Your task to perform on an android device: install app "PUBG MOBILE" Image 0: 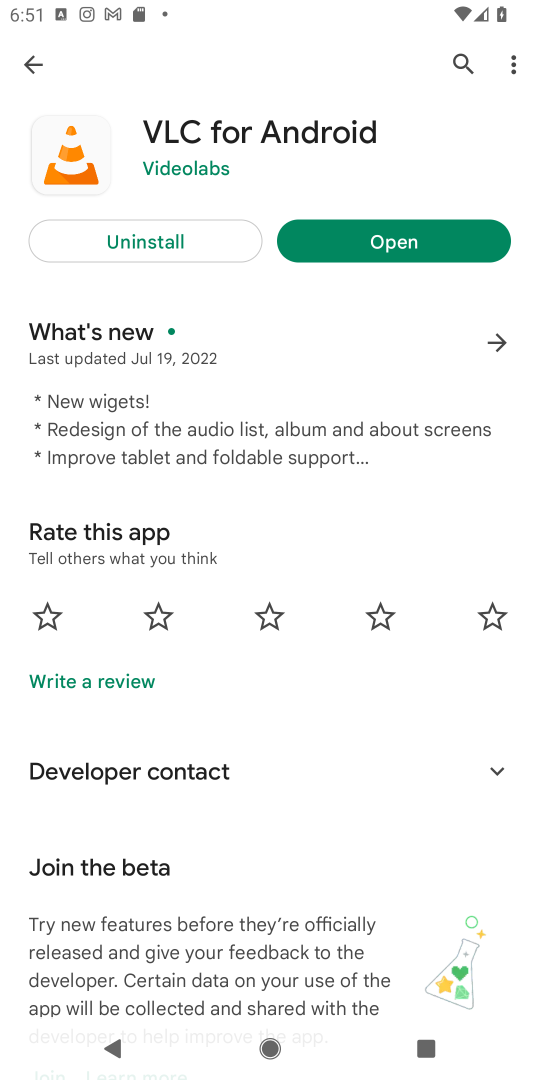
Step 0: press home button
Your task to perform on an android device: install app "PUBG MOBILE" Image 1: 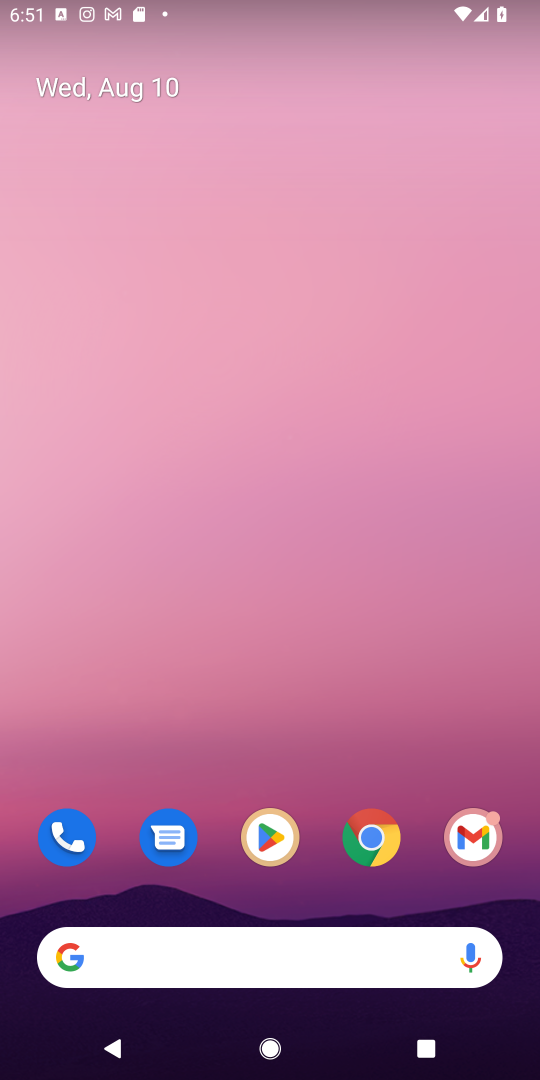
Step 1: click (277, 831)
Your task to perform on an android device: install app "PUBG MOBILE" Image 2: 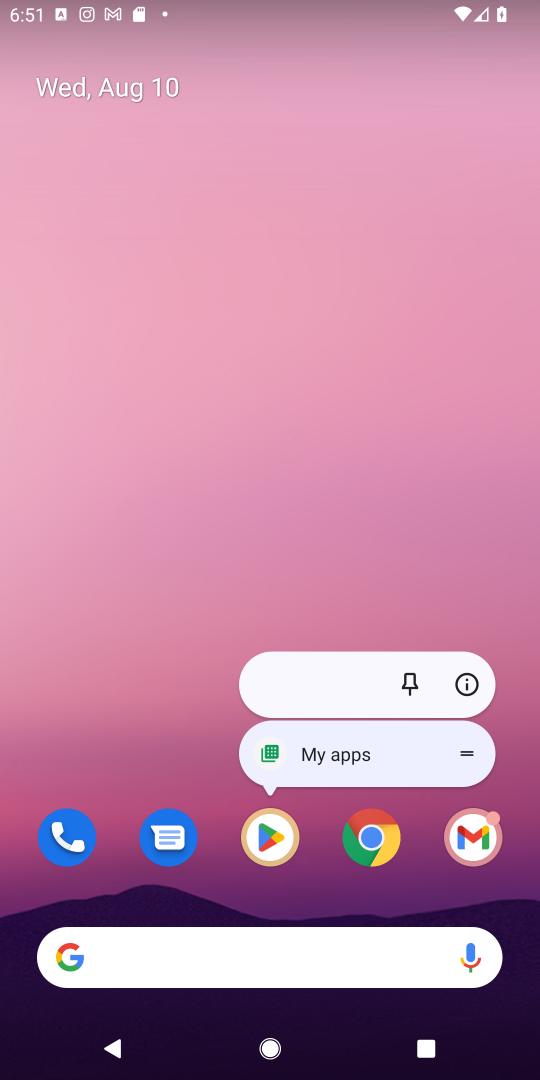
Step 2: click (273, 839)
Your task to perform on an android device: install app "PUBG MOBILE" Image 3: 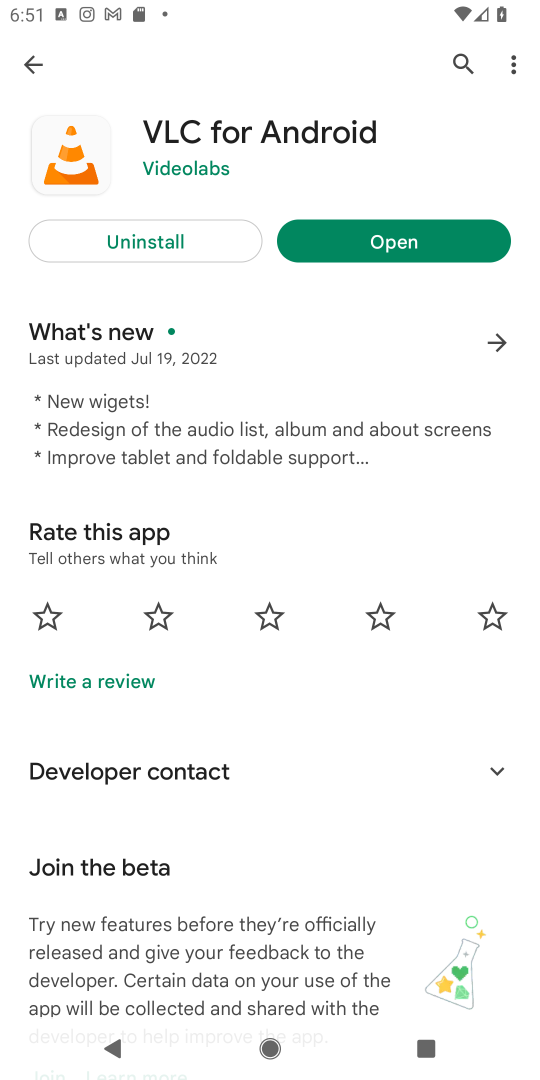
Step 3: click (457, 64)
Your task to perform on an android device: install app "PUBG MOBILE" Image 4: 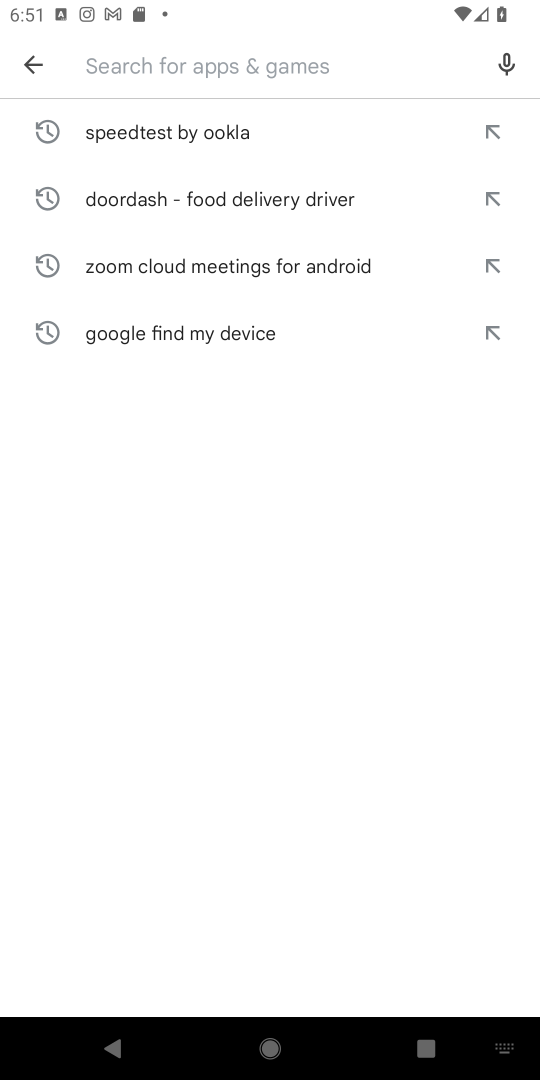
Step 4: type "PUBG MOBILE"
Your task to perform on an android device: install app "PUBG MOBILE" Image 5: 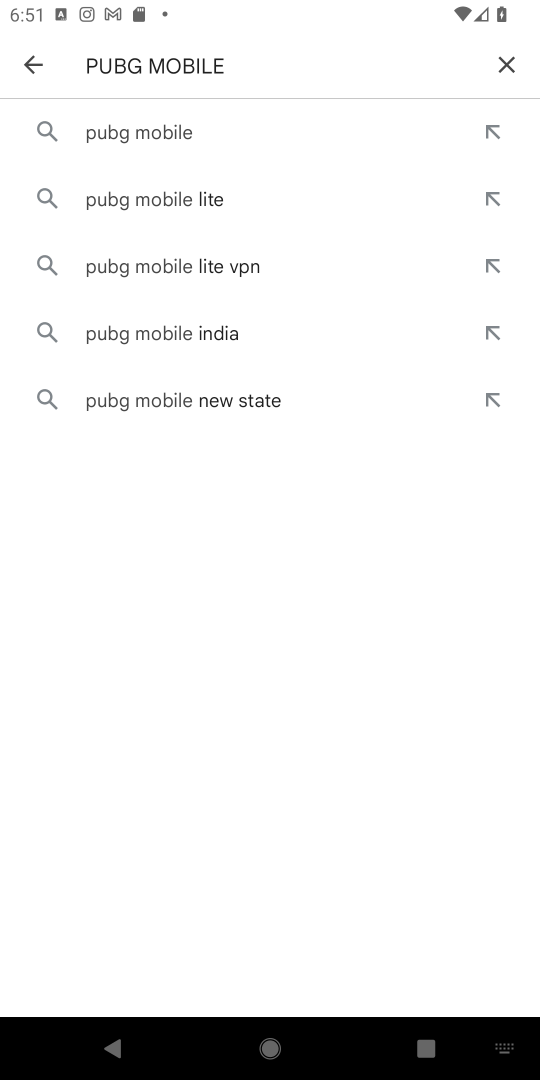
Step 5: click (154, 130)
Your task to perform on an android device: install app "PUBG MOBILE" Image 6: 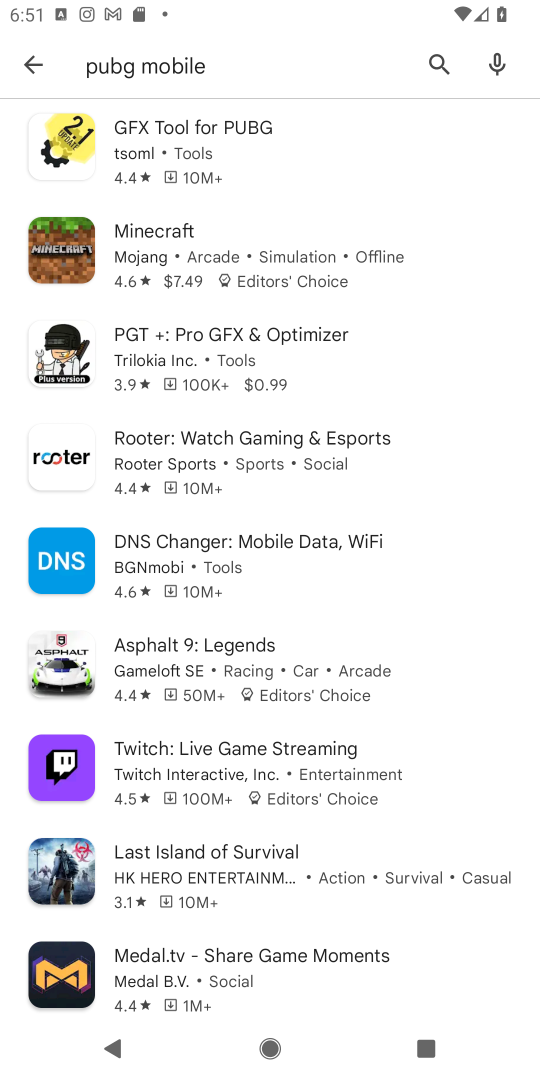
Step 6: task complete